Your task to perform on an android device: toggle sleep mode Image 0: 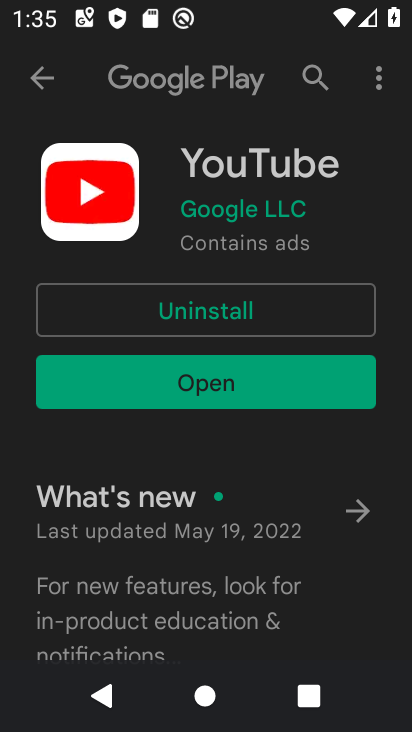
Step 0: click (193, 71)
Your task to perform on an android device: toggle sleep mode Image 1: 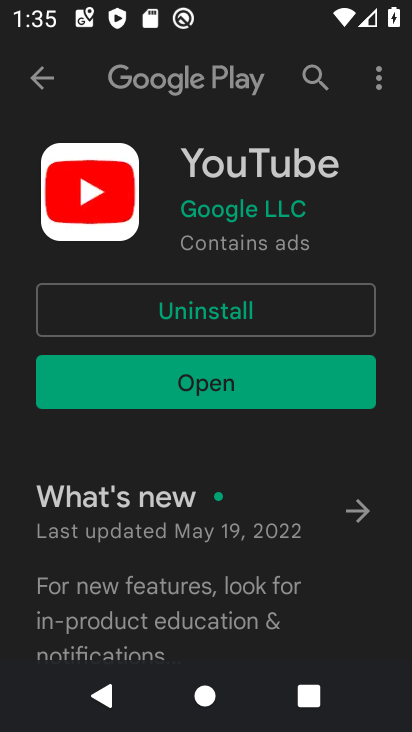
Step 1: press home button
Your task to perform on an android device: toggle sleep mode Image 2: 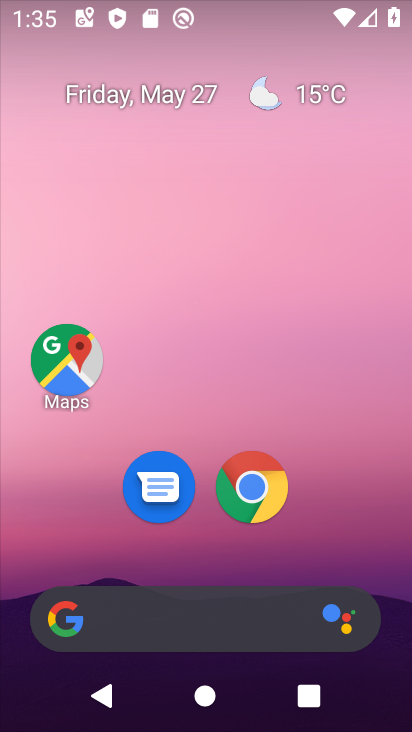
Step 2: drag from (251, 14) to (24, 680)
Your task to perform on an android device: toggle sleep mode Image 3: 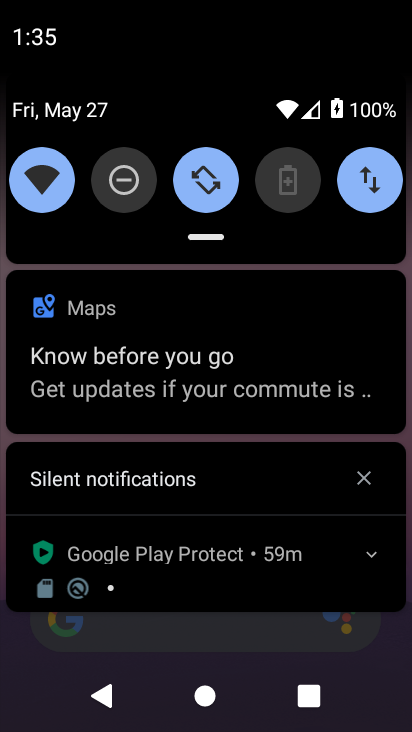
Step 3: drag from (197, 132) to (217, 644)
Your task to perform on an android device: toggle sleep mode Image 4: 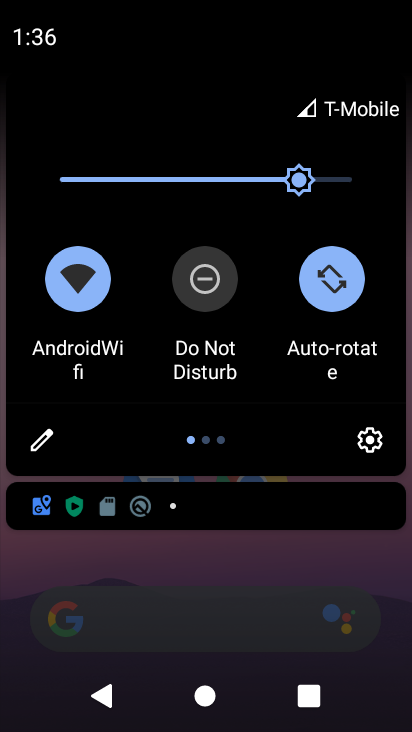
Step 4: click (366, 440)
Your task to perform on an android device: toggle sleep mode Image 5: 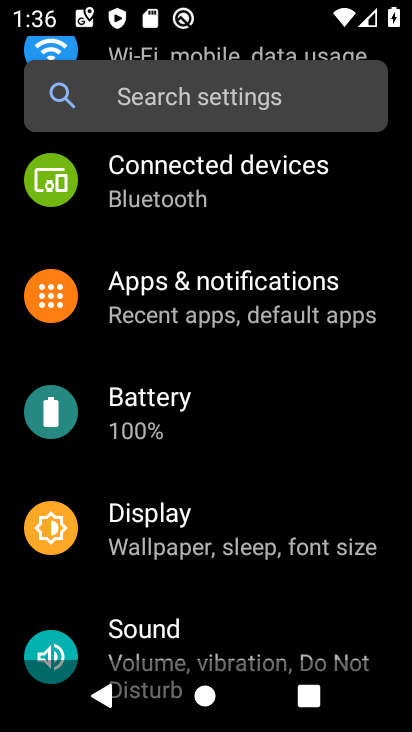
Step 5: task complete